Your task to perform on an android device: Go to sound settings Image 0: 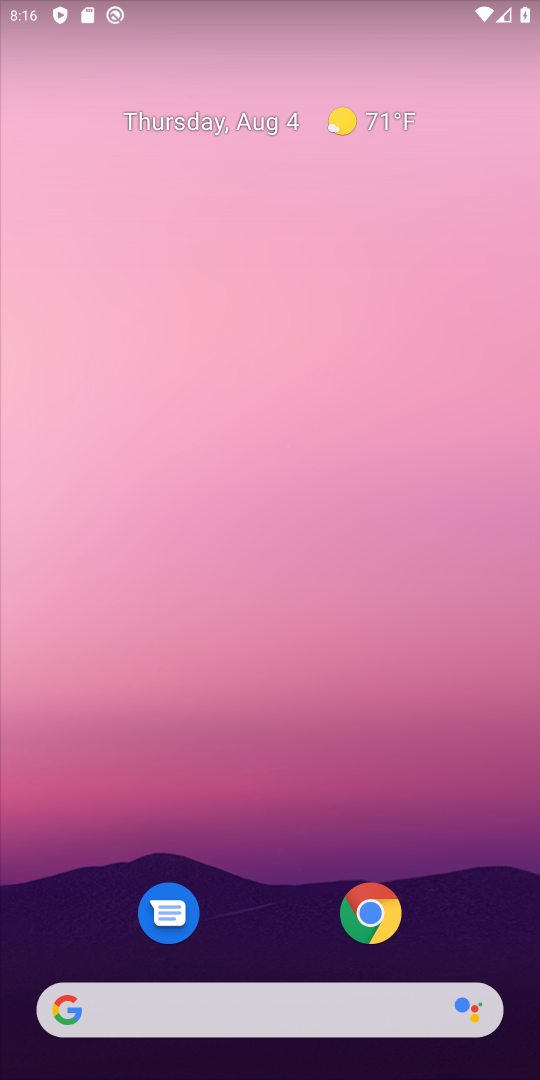
Step 0: drag from (347, 77) to (11, 191)
Your task to perform on an android device: Go to sound settings Image 1: 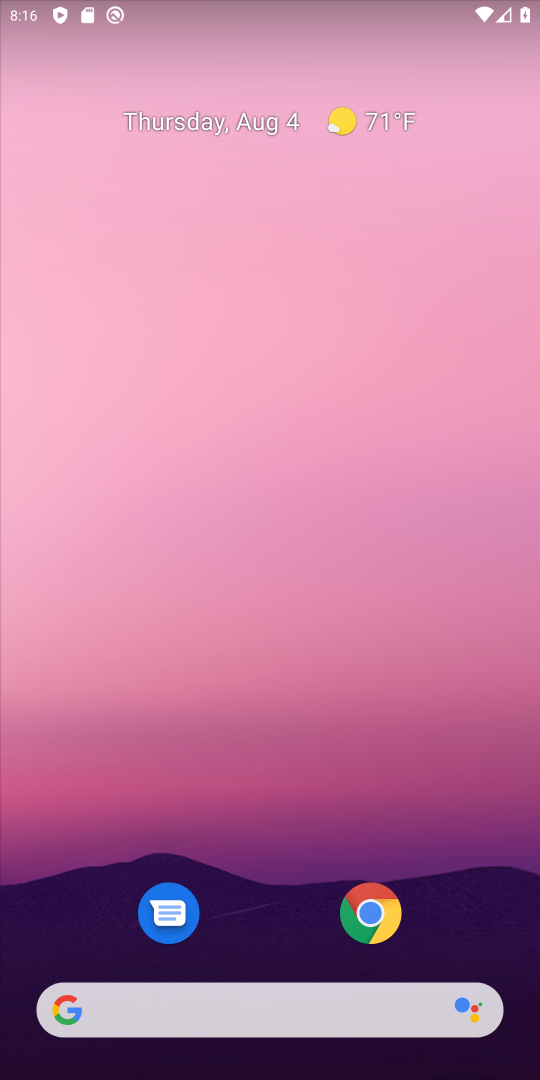
Step 1: drag from (251, 908) to (285, 67)
Your task to perform on an android device: Go to sound settings Image 2: 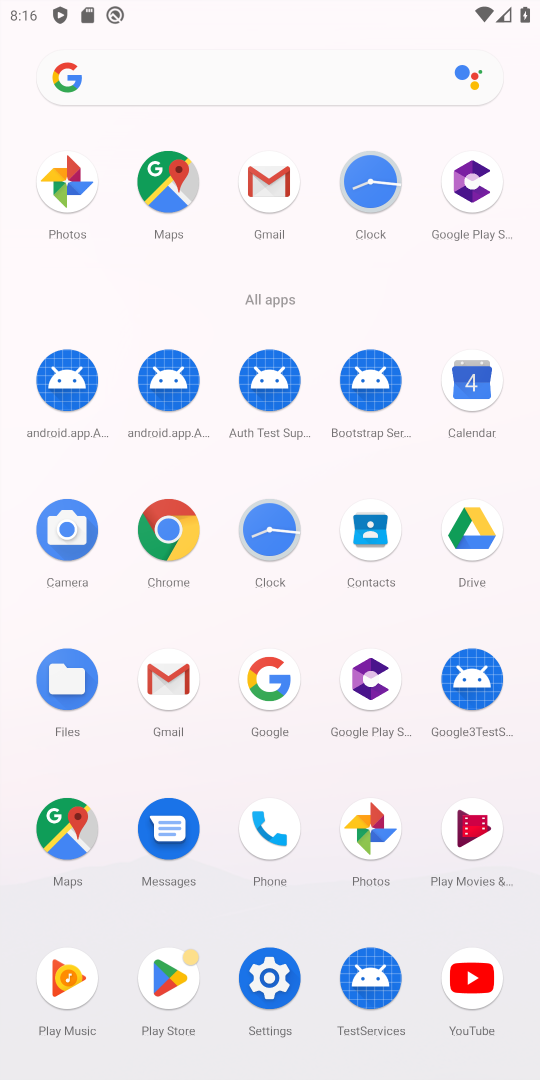
Step 2: click (278, 995)
Your task to perform on an android device: Go to sound settings Image 3: 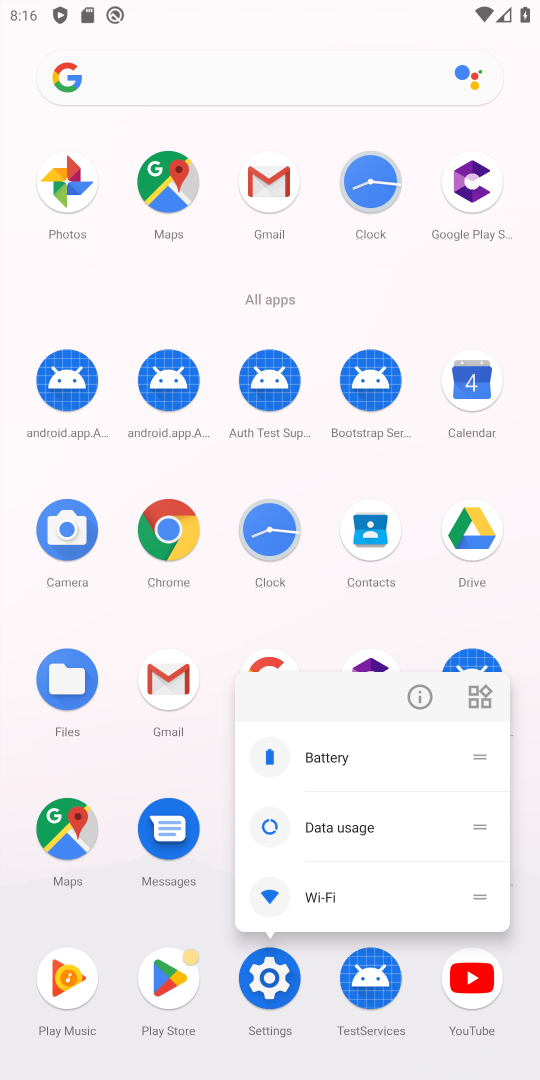
Step 3: click (428, 689)
Your task to perform on an android device: Go to sound settings Image 4: 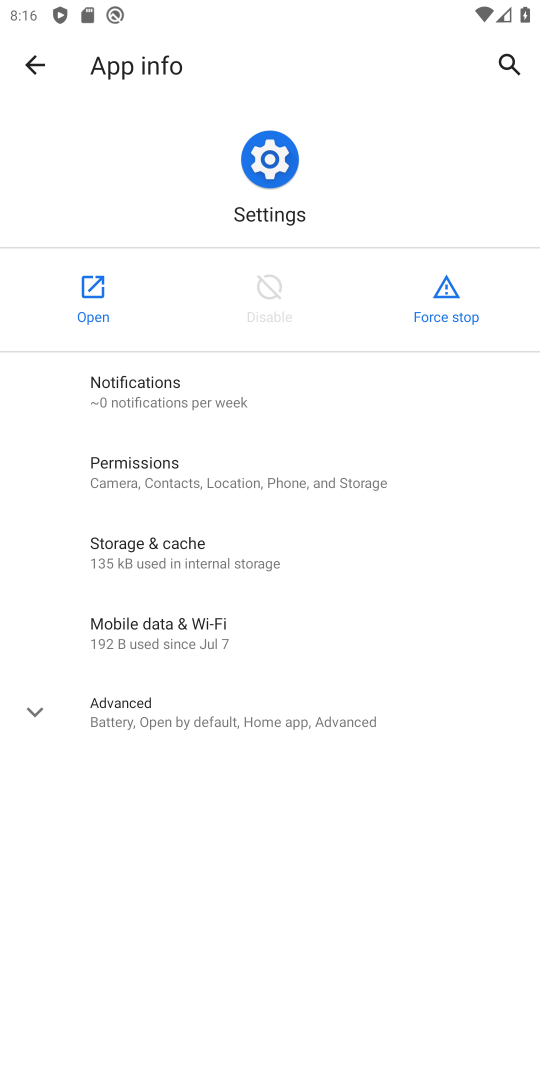
Step 4: click (86, 286)
Your task to perform on an android device: Go to sound settings Image 5: 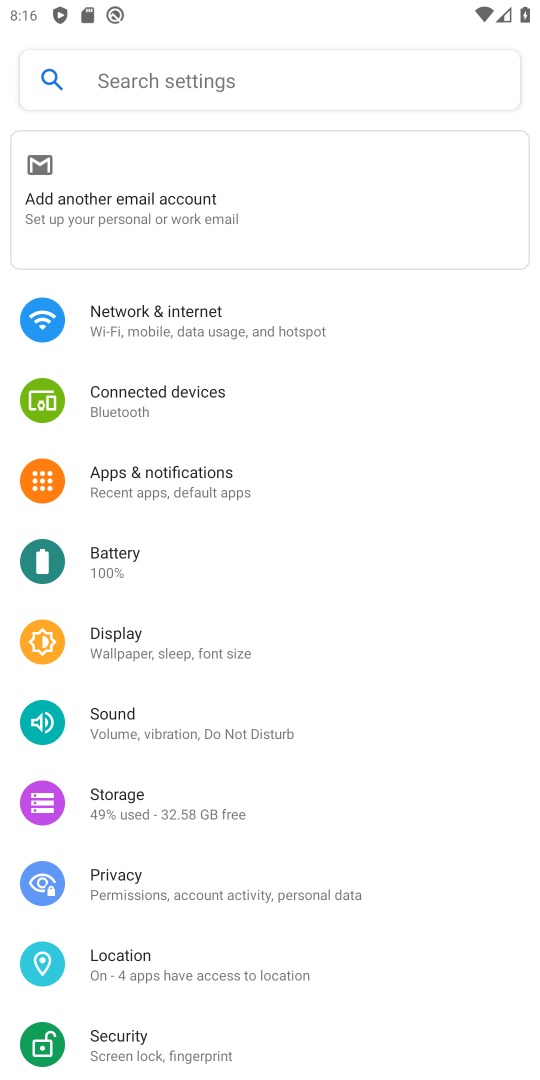
Step 5: click (159, 730)
Your task to perform on an android device: Go to sound settings Image 6: 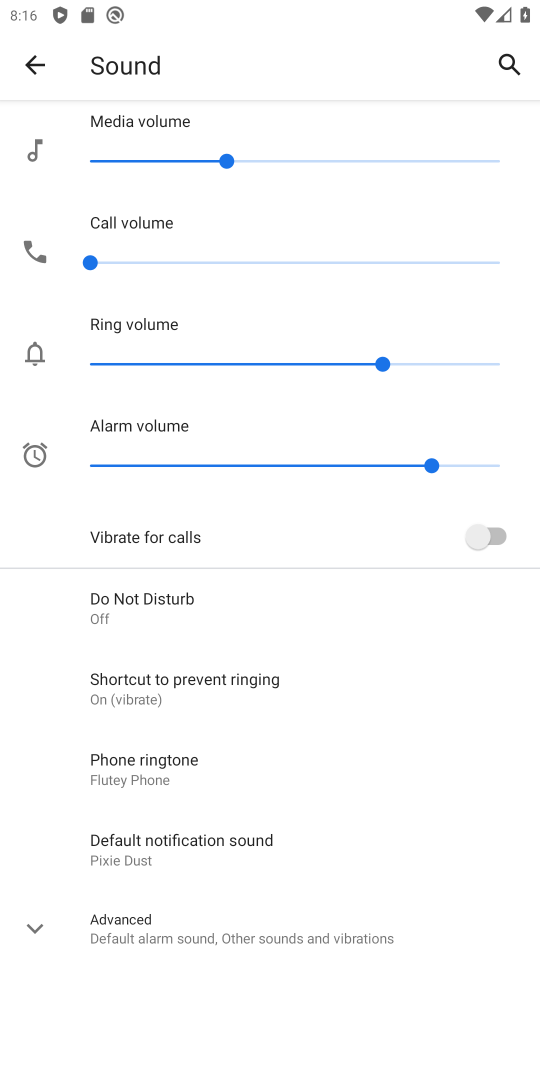
Step 6: task complete